Your task to perform on an android device: turn off notifications in google photos Image 0: 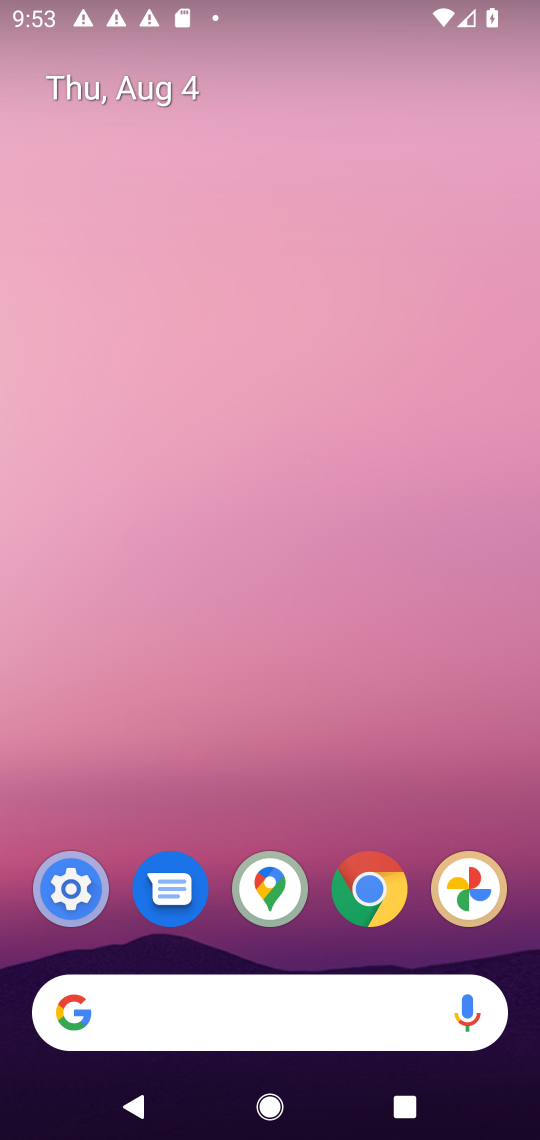
Step 0: press home button
Your task to perform on an android device: turn off notifications in google photos Image 1: 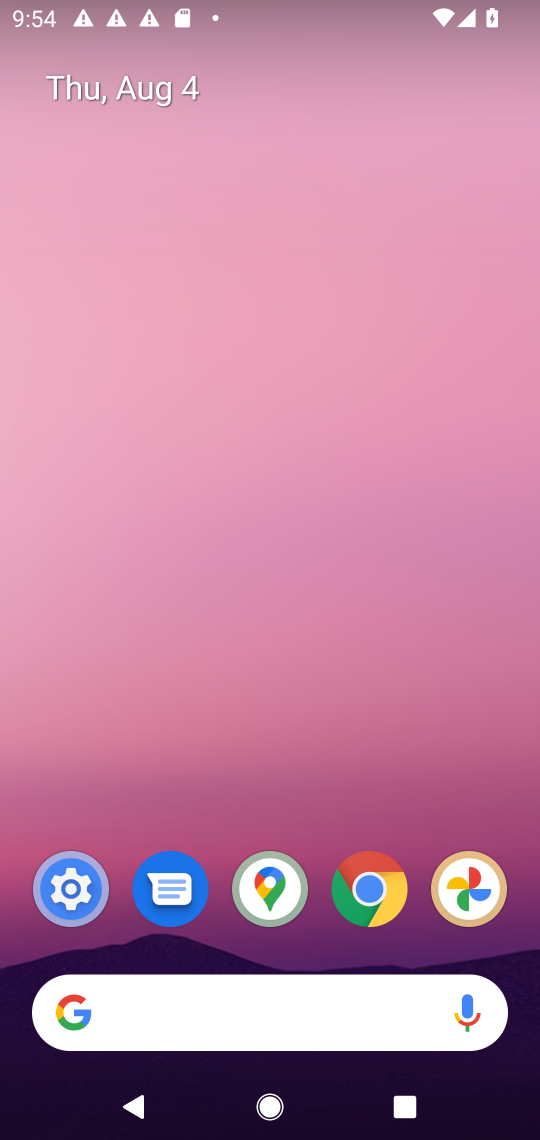
Step 1: drag from (360, 796) to (425, 249)
Your task to perform on an android device: turn off notifications in google photos Image 2: 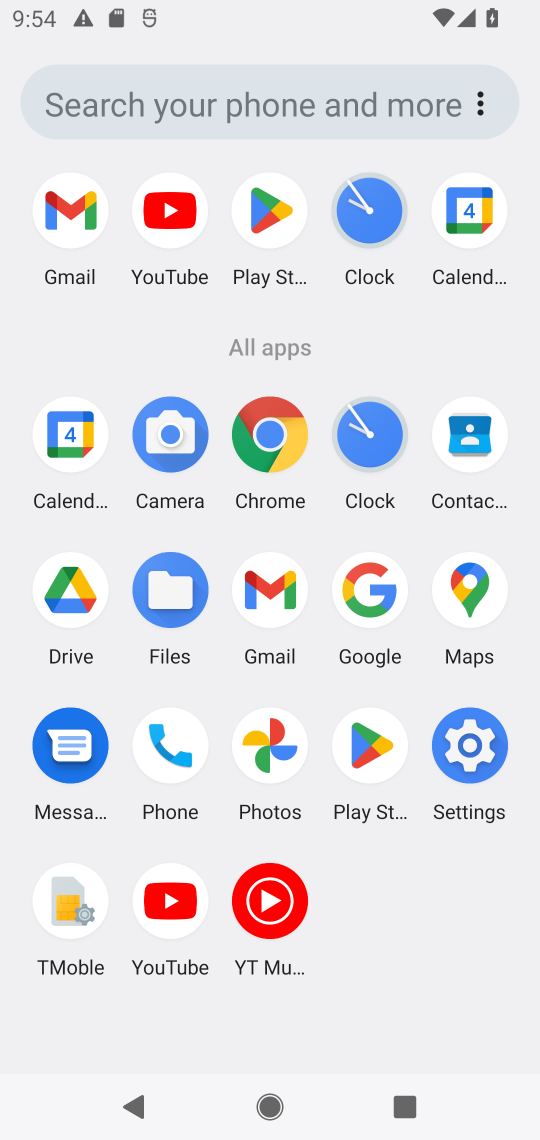
Step 2: click (268, 748)
Your task to perform on an android device: turn off notifications in google photos Image 3: 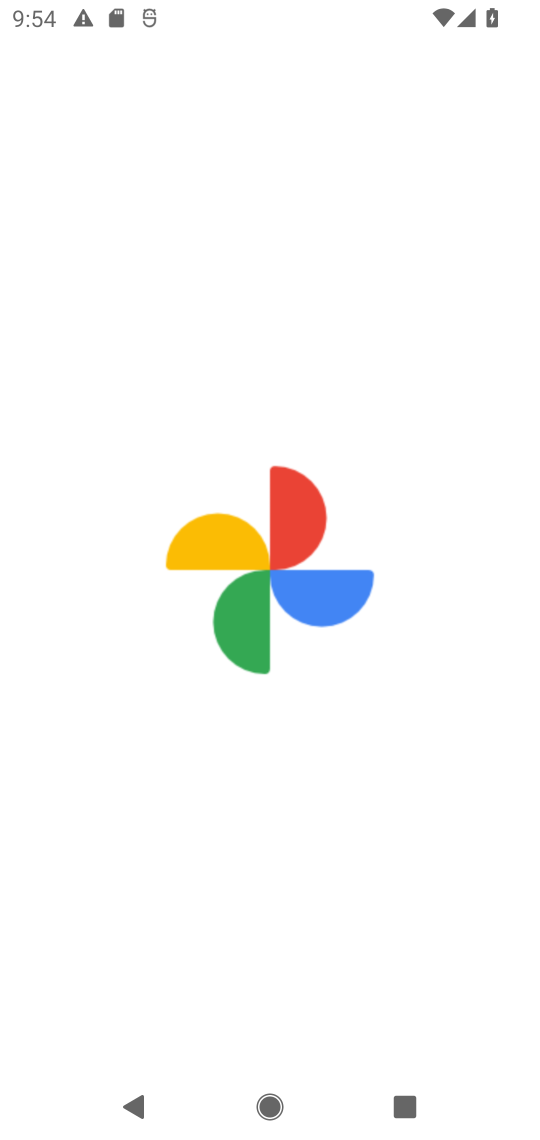
Step 3: task complete